Your task to perform on an android device: What's the weather? Image 0: 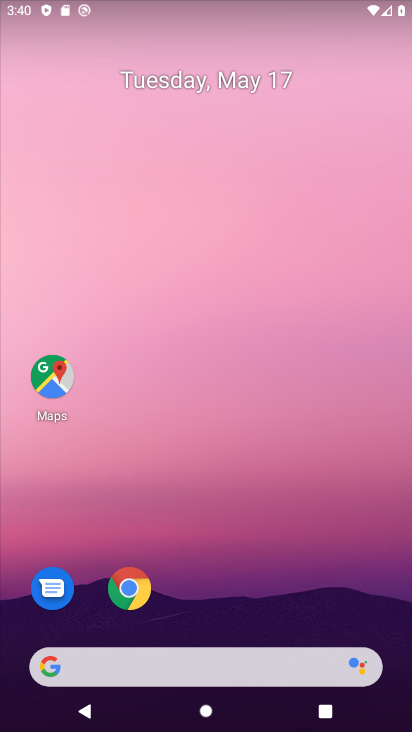
Step 0: drag from (250, 566) to (168, 93)
Your task to perform on an android device: What's the weather? Image 1: 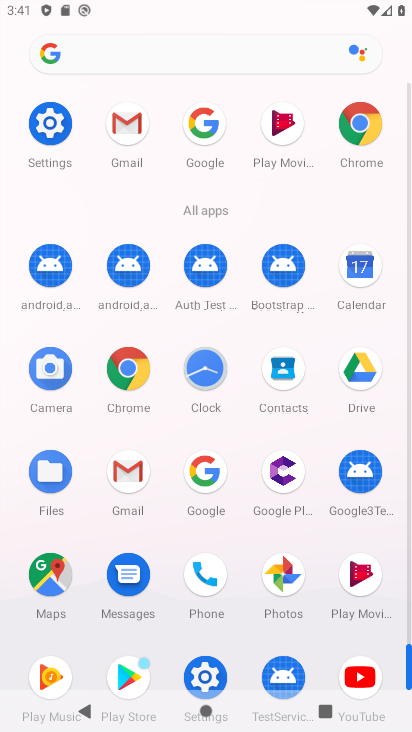
Step 1: click (201, 125)
Your task to perform on an android device: What's the weather? Image 2: 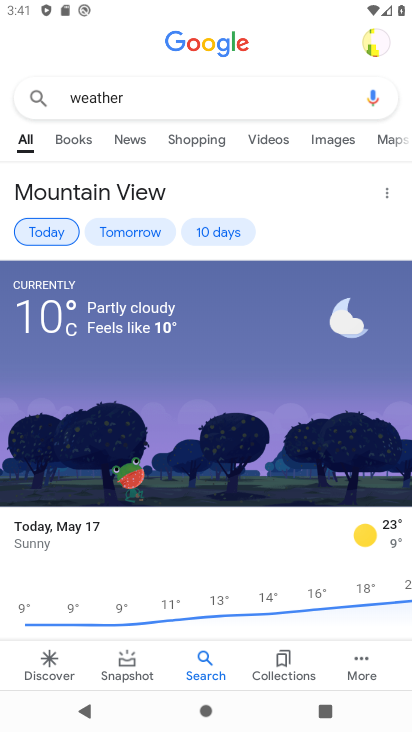
Step 2: task complete